Your task to perform on an android device: turn on notifications settings in the gmail app Image 0: 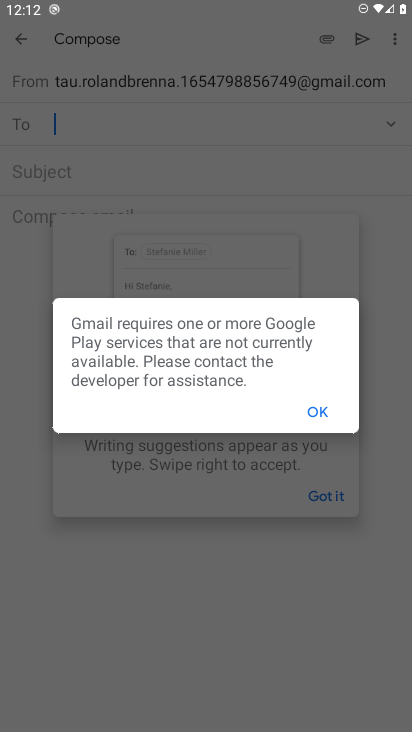
Step 0: press home button
Your task to perform on an android device: turn on notifications settings in the gmail app Image 1: 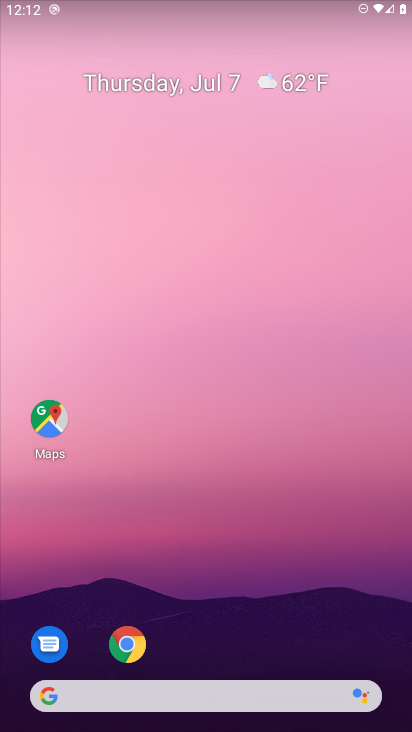
Step 1: drag from (291, 574) to (289, 77)
Your task to perform on an android device: turn on notifications settings in the gmail app Image 2: 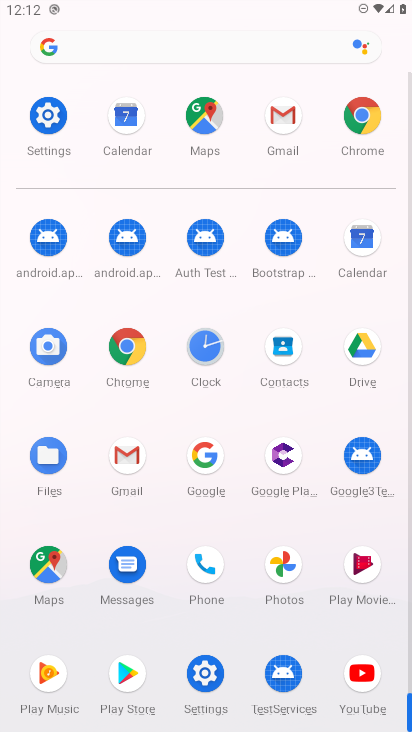
Step 2: click (276, 114)
Your task to perform on an android device: turn on notifications settings in the gmail app Image 3: 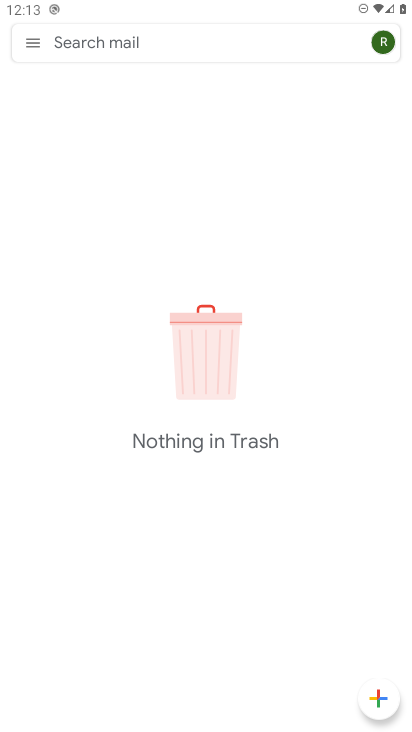
Step 3: click (35, 39)
Your task to perform on an android device: turn on notifications settings in the gmail app Image 4: 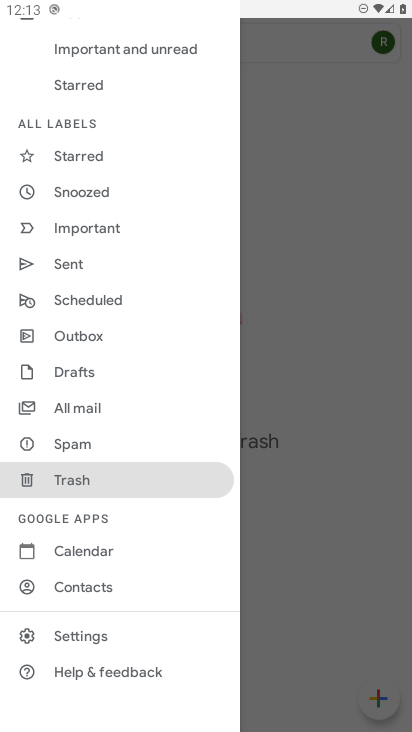
Step 4: click (80, 638)
Your task to perform on an android device: turn on notifications settings in the gmail app Image 5: 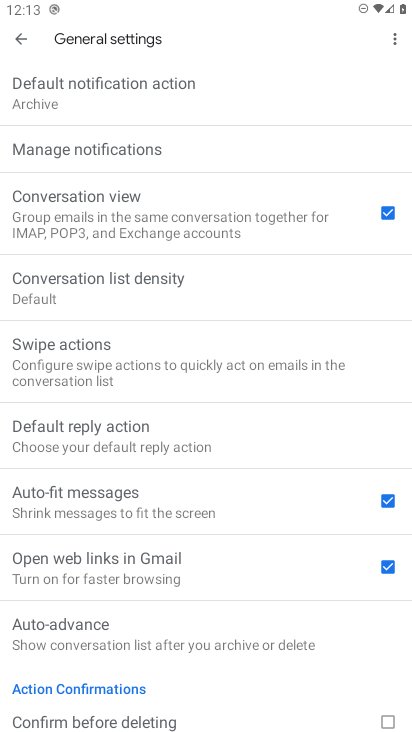
Step 5: click (150, 147)
Your task to perform on an android device: turn on notifications settings in the gmail app Image 6: 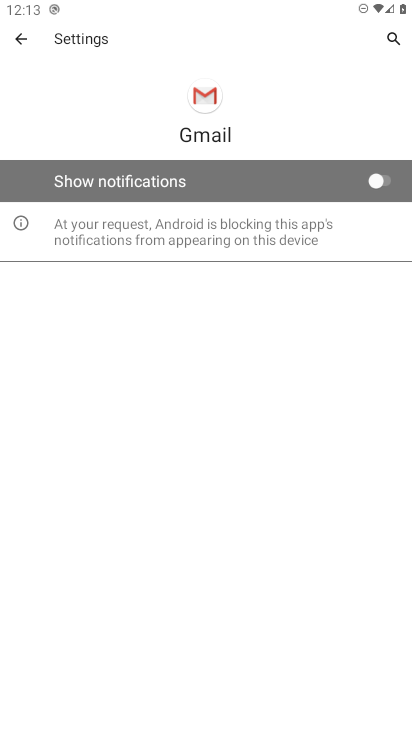
Step 6: click (383, 174)
Your task to perform on an android device: turn on notifications settings in the gmail app Image 7: 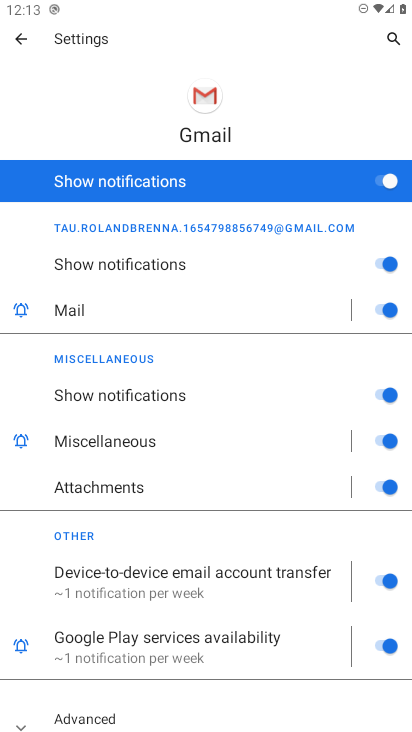
Step 7: task complete